Your task to perform on an android device: open a new tab in the chrome app Image 0: 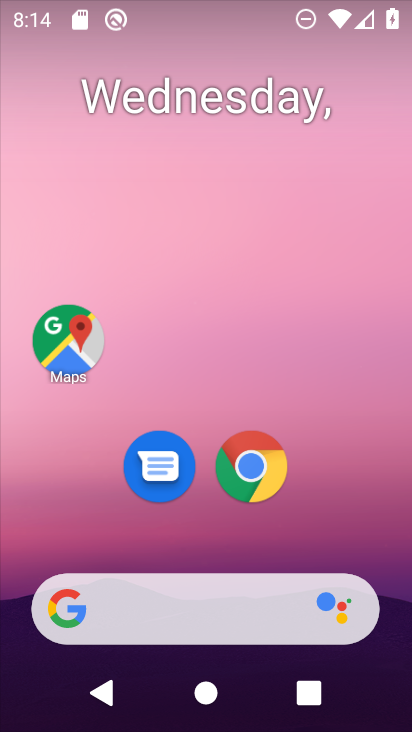
Step 0: click (251, 462)
Your task to perform on an android device: open a new tab in the chrome app Image 1: 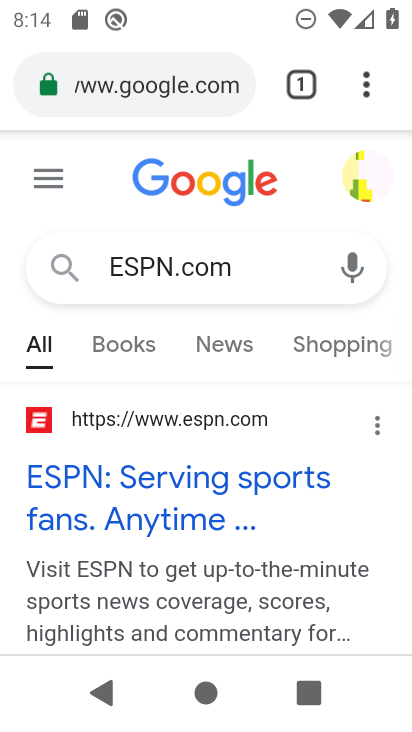
Step 1: click (371, 87)
Your task to perform on an android device: open a new tab in the chrome app Image 2: 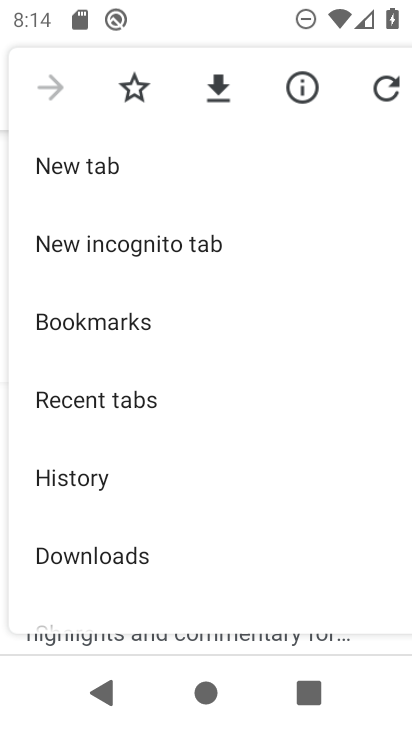
Step 2: click (94, 168)
Your task to perform on an android device: open a new tab in the chrome app Image 3: 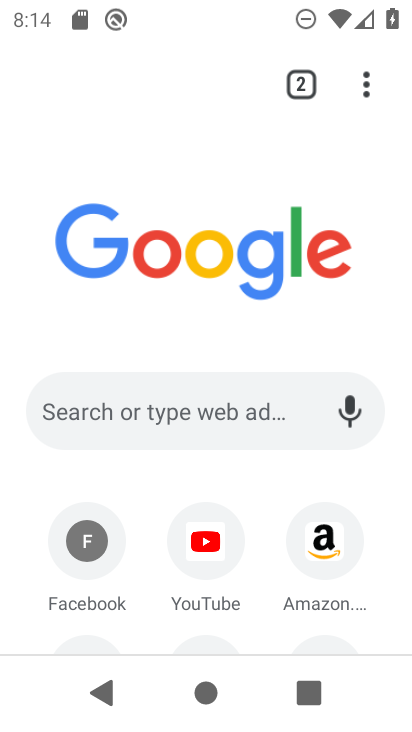
Step 3: task complete